Your task to perform on an android device: Go to wifi settings Image 0: 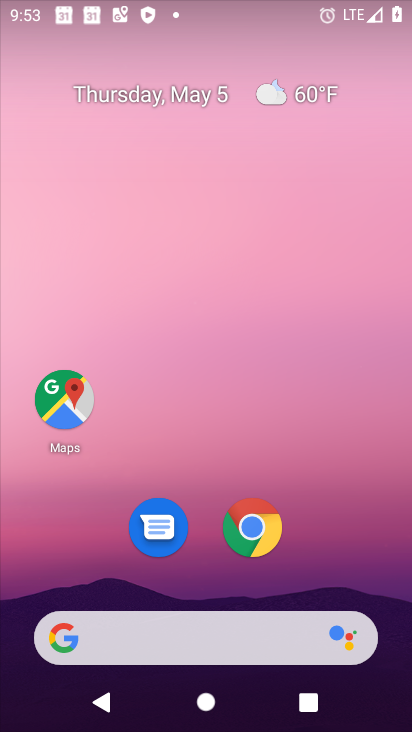
Step 0: click (258, 532)
Your task to perform on an android device: Go to wifi settings Image 1: 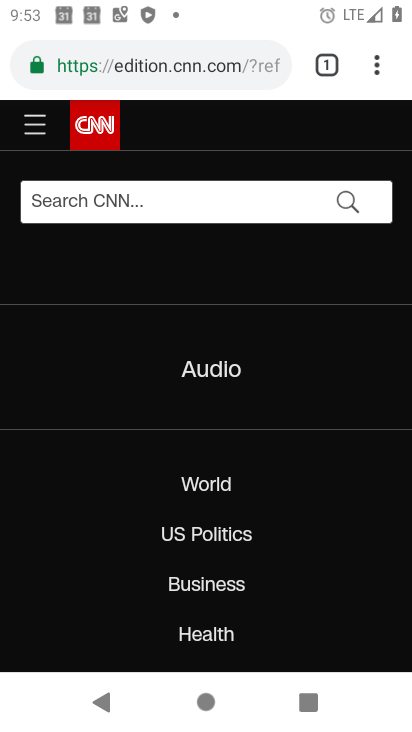
Step 1: press home button
Your task to perform on an android device: Go to wifi settings Image 2: 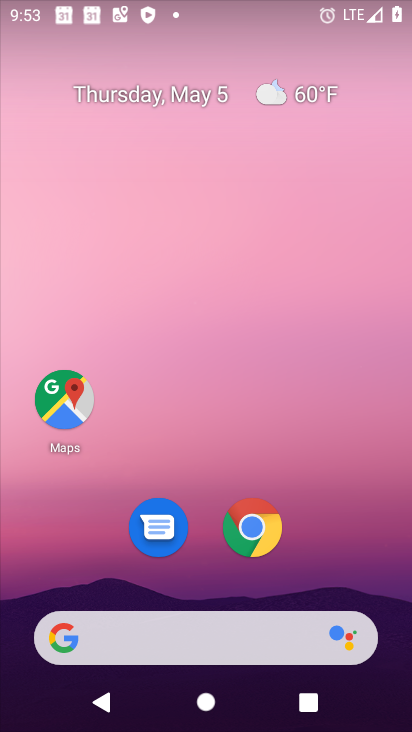
Step 2: drag from (232, 442) to (303, 18)
Your task to perform on an android device: Go to wifi settings Image 3: 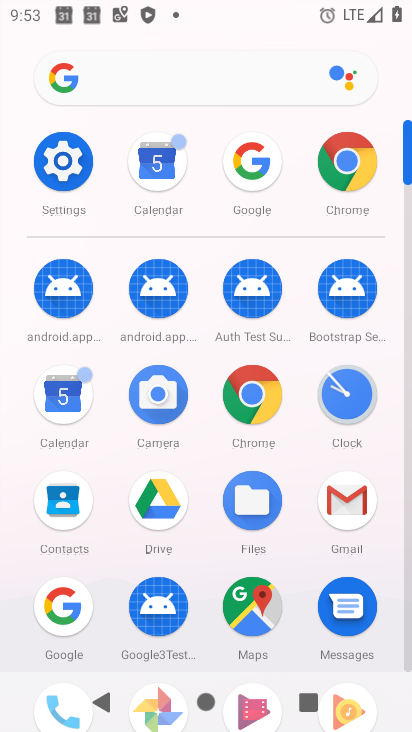
Step 3: click (54, 178)
Your task to perform on an android device: Go to wifi settings Image 4: 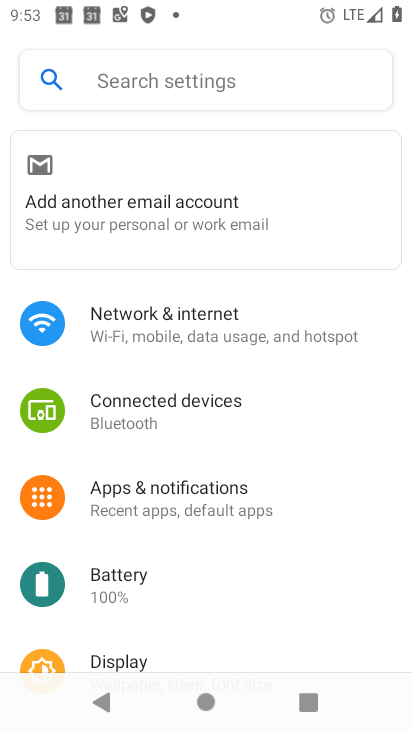
Step 4: click (214, 337)
Your task to perform on an android device: Go to wifi settings Image 5: 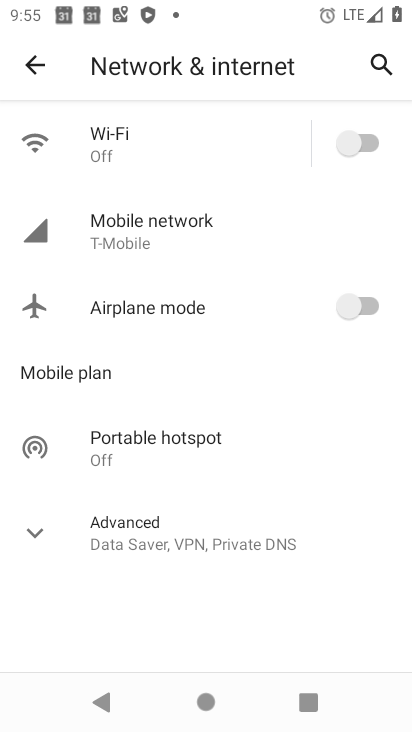
Step 5: click (116, 150)
Your task to perform on an android device: Go to wifi settings Image 6: 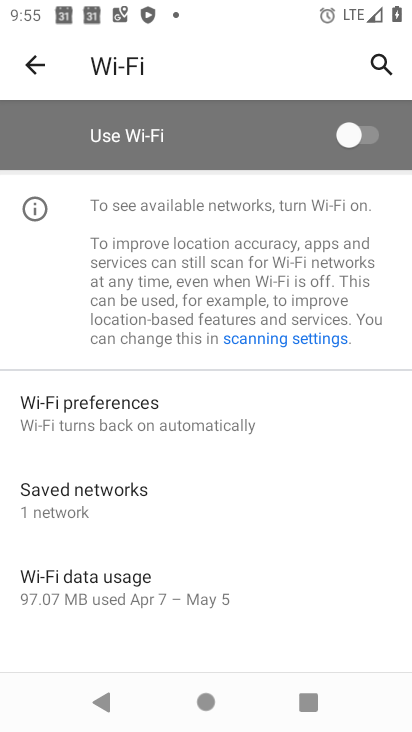
Step 6: task complete